Your task to perform on an android device: open sync settings in chrome Image 0: 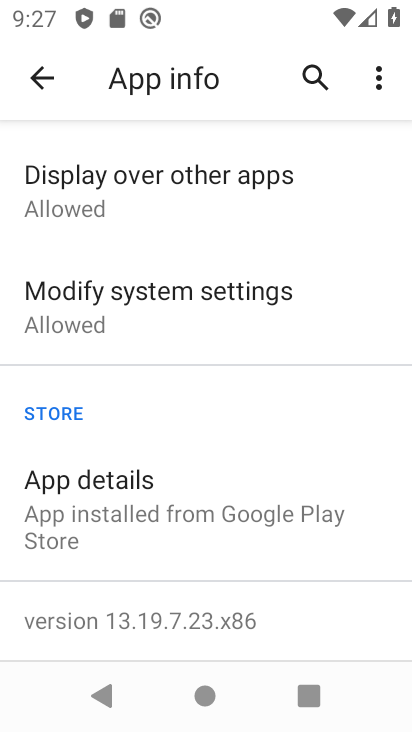
Step 0: drag from (290, 307) to (229, 694)
Your task to perform on an android device: open sync settings in chrome Image 1: 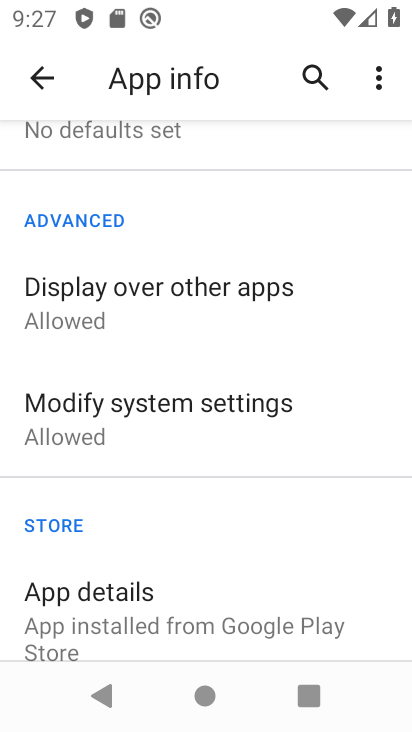
Step 1: drag from (314, 201) to (277, 649)
Your task to perform on an android device: open sync settings in chrome Image 2: 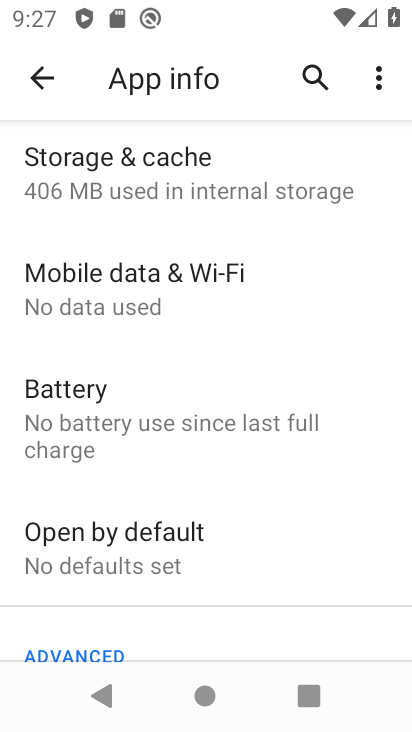
Step 2: drag from (335, 234) to (260, 680)
Your task to perform on an android device: open sync settings in chrome Image 3: 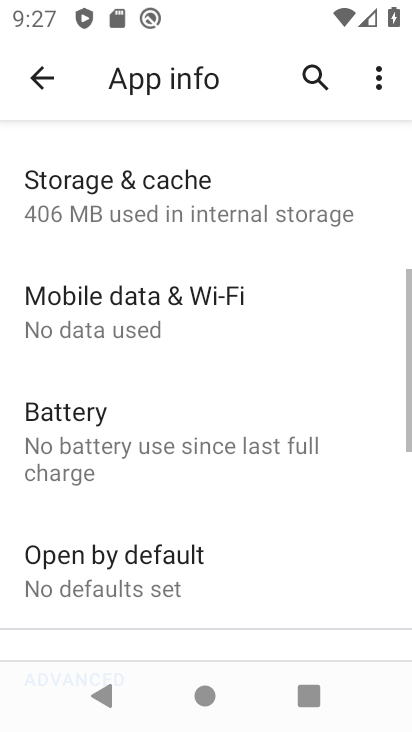
Step 3: press home button
Your task to perform on an android device: open sync settings in chrome Image 4: 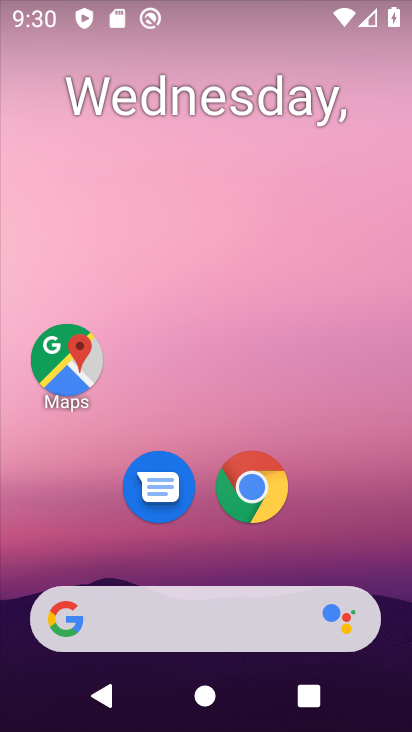
Step 4: click (253, 488)
Your task to perform on an android device: open sync settings in chrome Image 5: 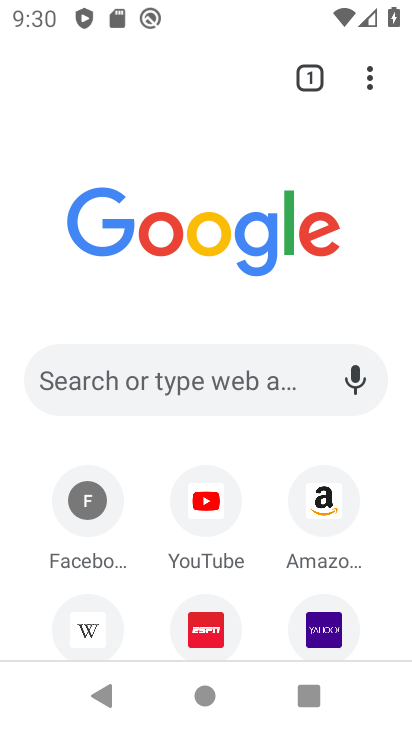
Step 5: click (374, 78)
Your task to perform on an android device: open sync settings in chrome Image 6: 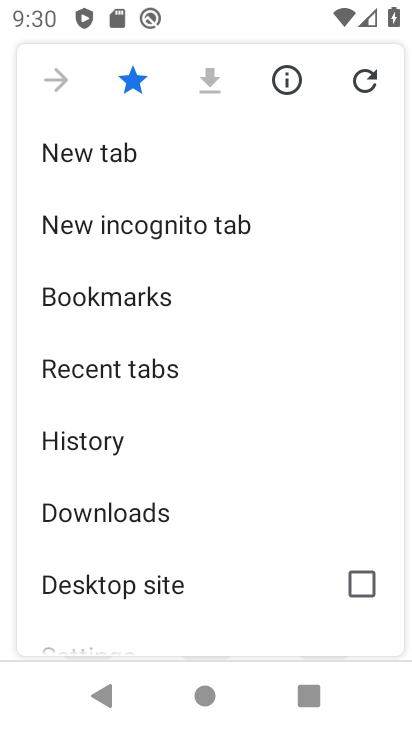
Step 6: click (123, 645)
Your task to perform on an android device: open sync settings in chrome Image 7: 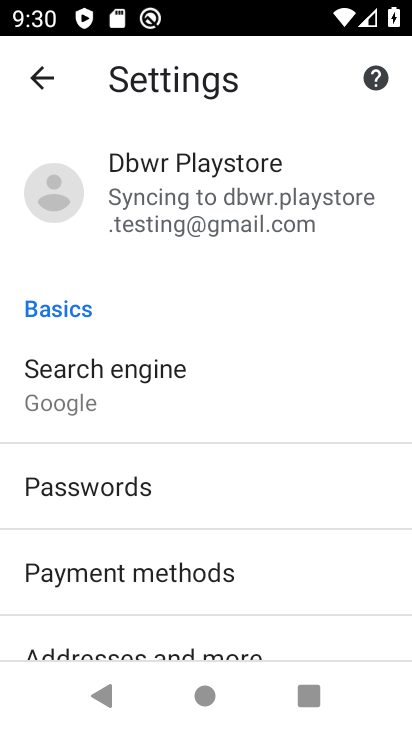
Step 7: click (268, 156)
Your task to perform on an android device: open sync settings in chrome Image 8: 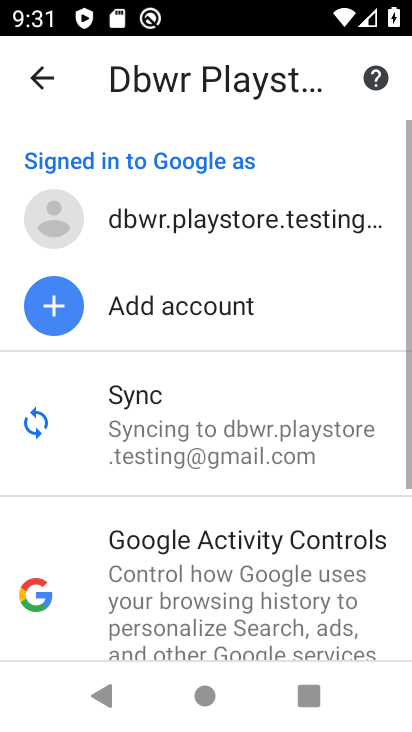
Step 8: task complete